Your task to perform on an android device: Add "bose quietcomfort 35" to the cart on costco.com, then select checkout. Image 0: 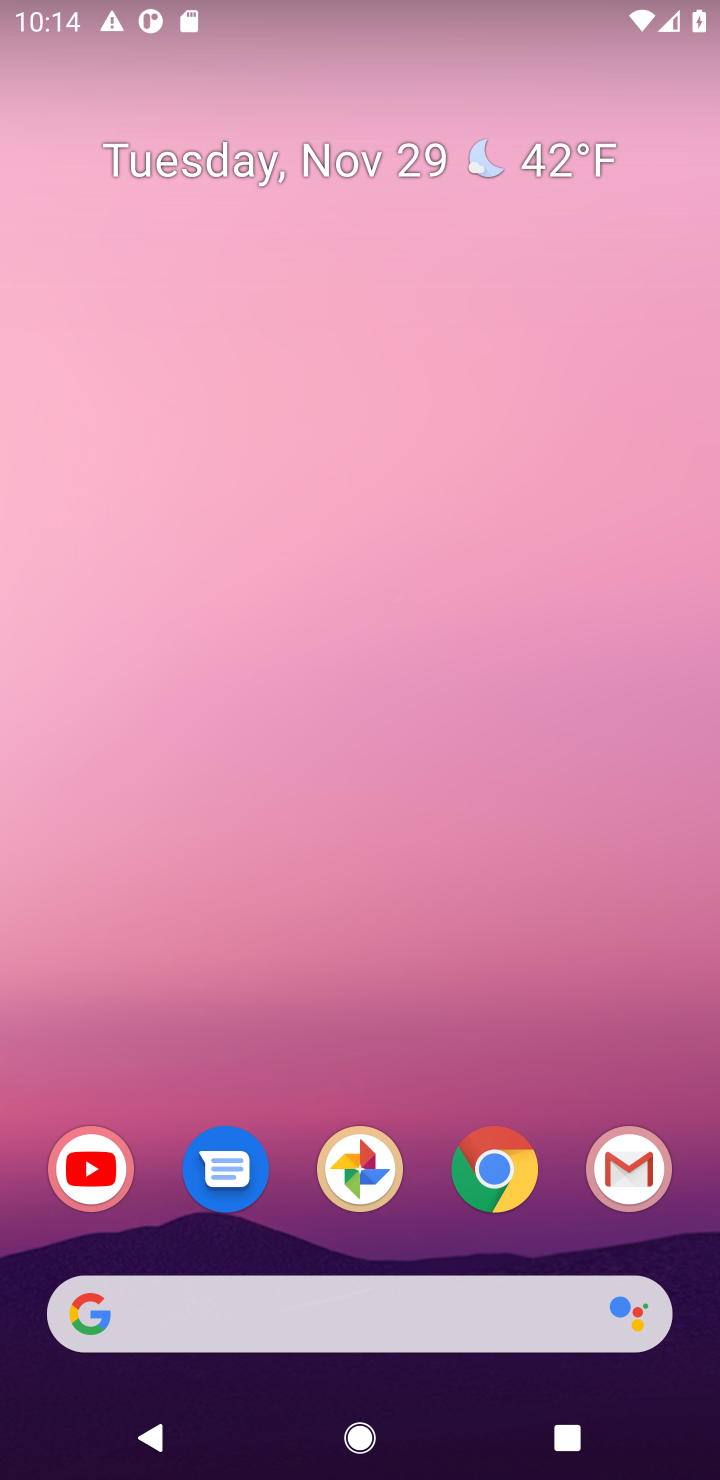
Step 0: click (295, 1289)
Your task to perform on an android device: Add "bose quietcomfort 35" to the cart on costco.com, then select checkout. Image 1: 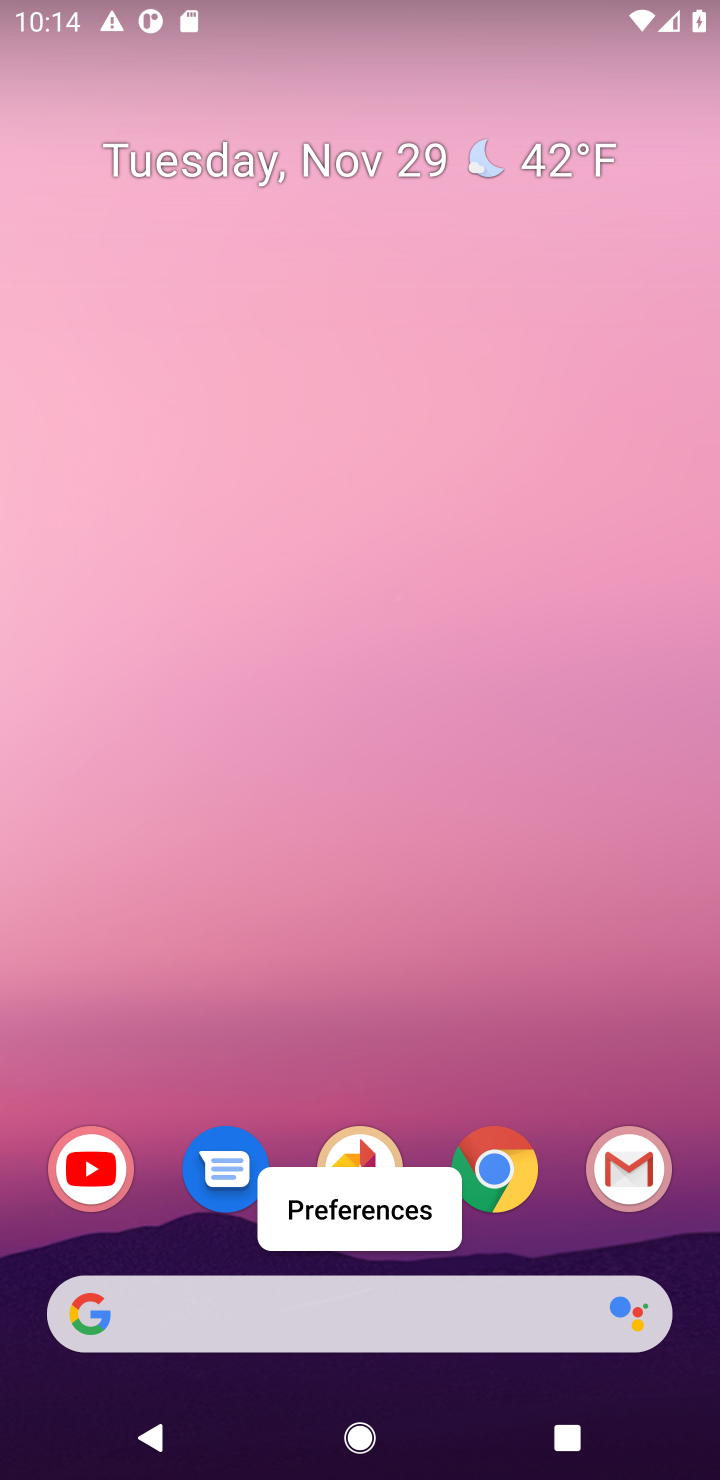
Step 1: type "costco.com"
Your task to perform on an android device: Add "bose quietcomfort 35" to the cart on costco.com, then select checkout. Image 2: 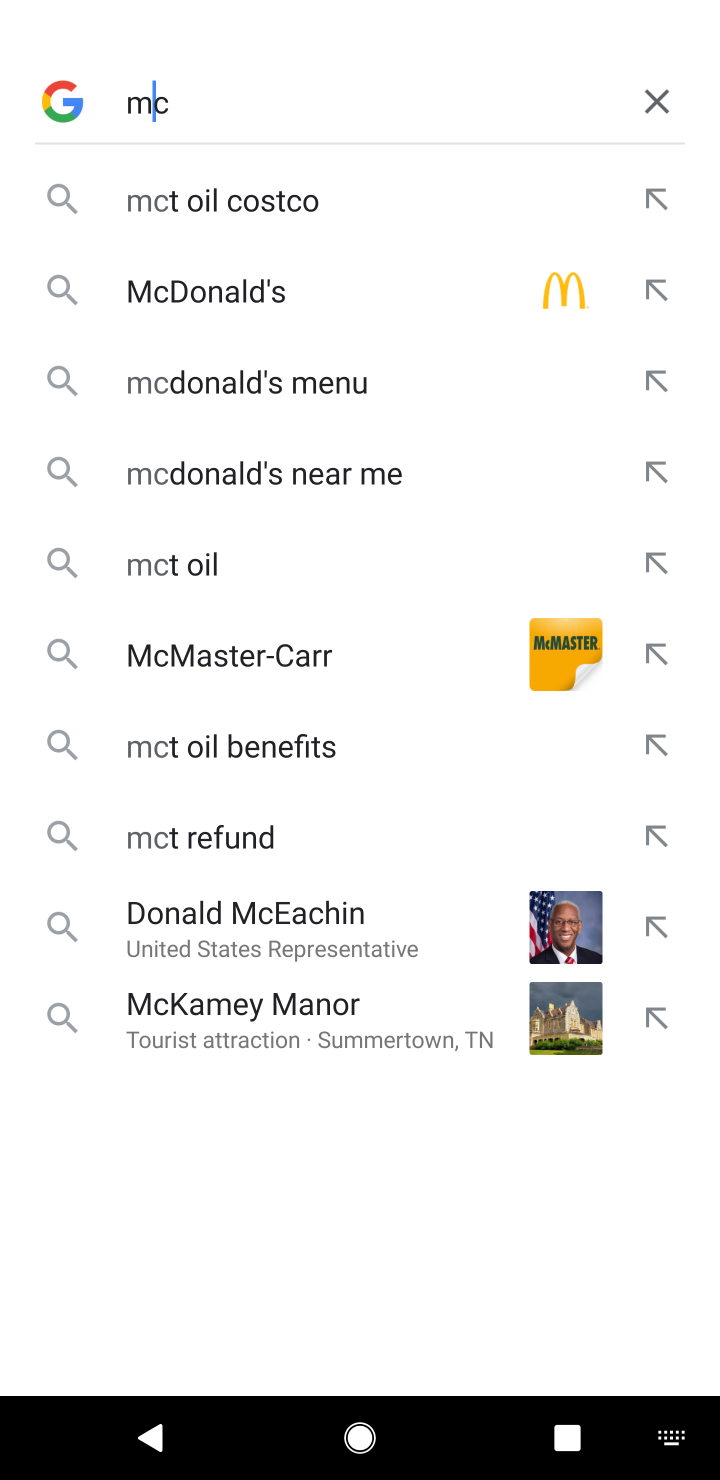
Step 2: click (645, 112)
Your task to perform on an android device: Add "bose quietcomfort 35" to the cart on costco.com, then select checkout. Image 3: 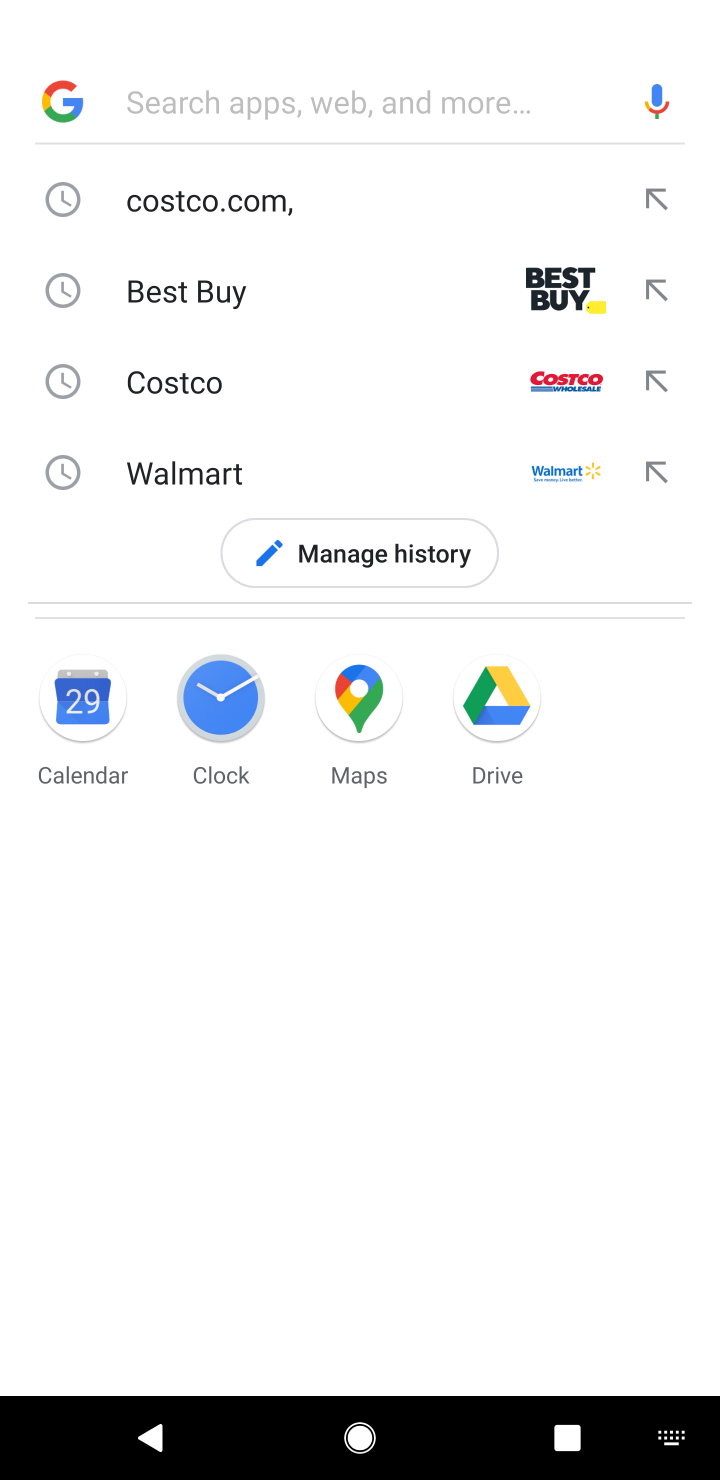
Step 3: click (207, 372)
Your task to perform on an android device: Add "bose quietcomfort 35" to the cart on costco.com, then select checkout. Image 4: 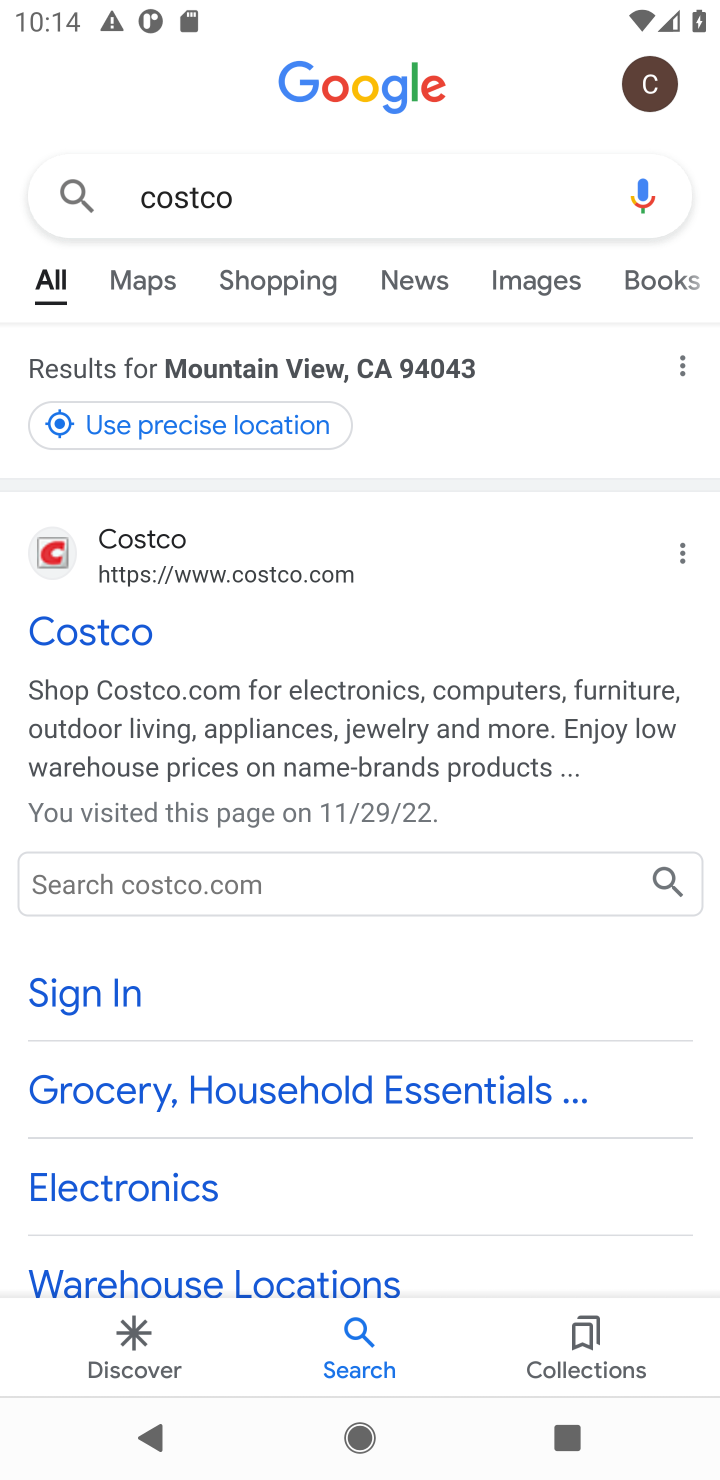
Step 4: click (97, 646)
Your task to perform on an android device: Add "bose quietcomfort 35" to the cart on costco.com, then select checkout. Image 5: 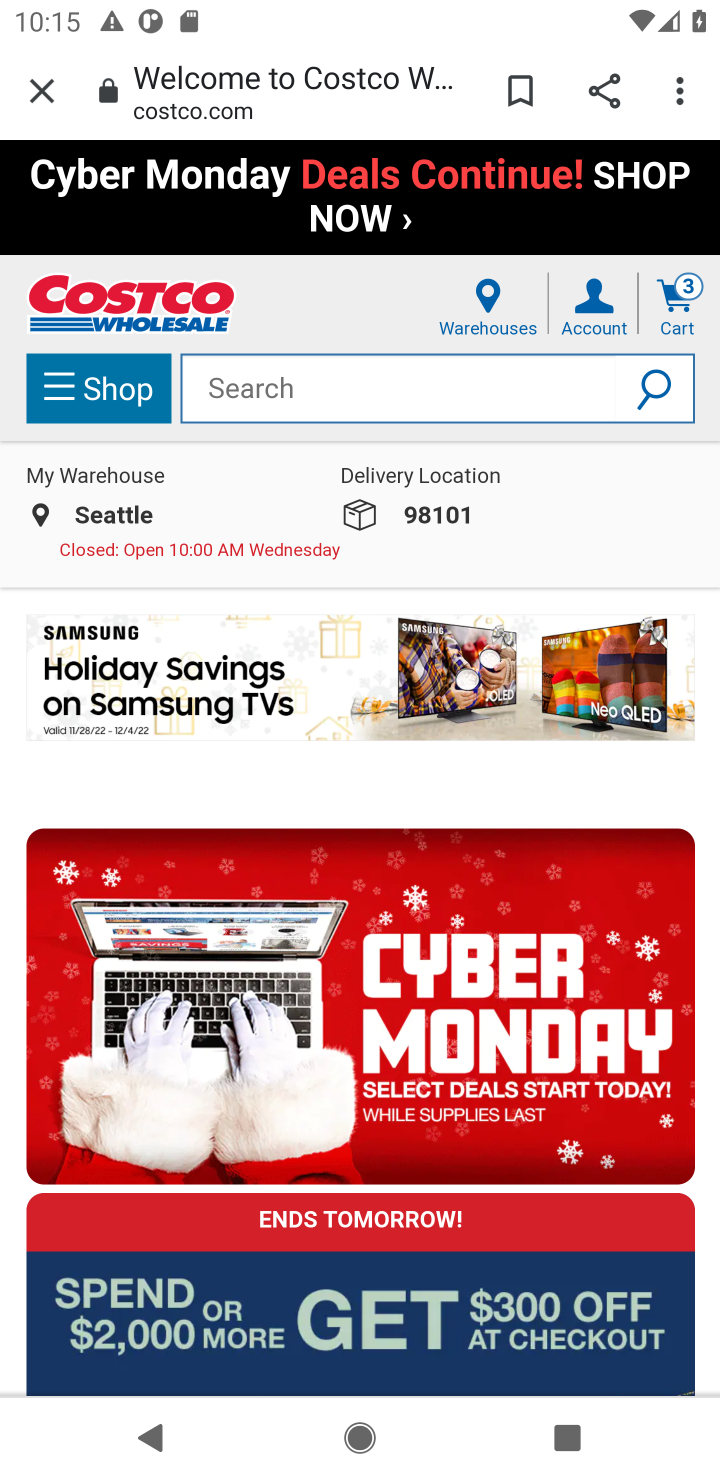
Step 5: click (284, 402)
Your task to perform on an android device: Add "bose quietcomfort 35" to the cart on costco.com, then select checkout. Image 6: 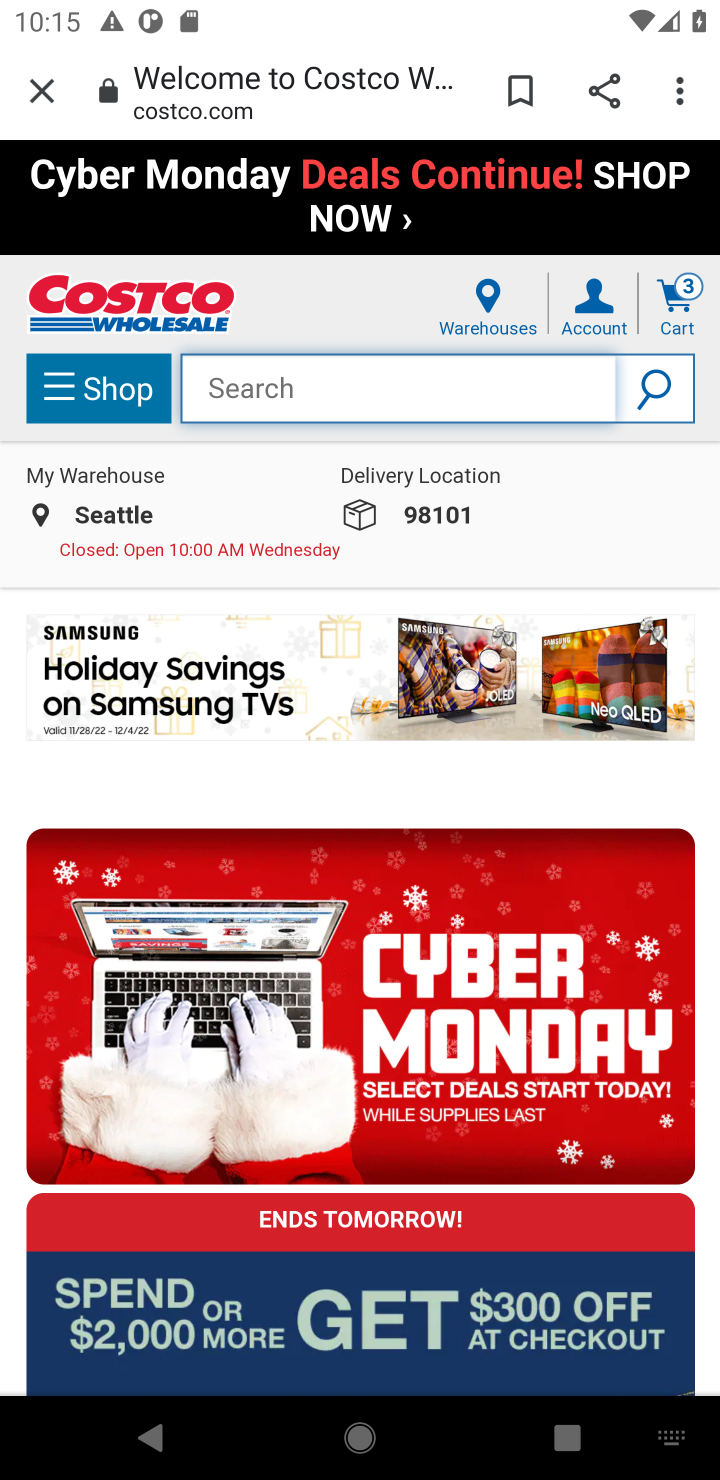
Step 6: type "costco.com"
Your task to perform on an android device: Add "bose quietcomfort 35" to the cart on costco.com, then select checkout. Image 7: 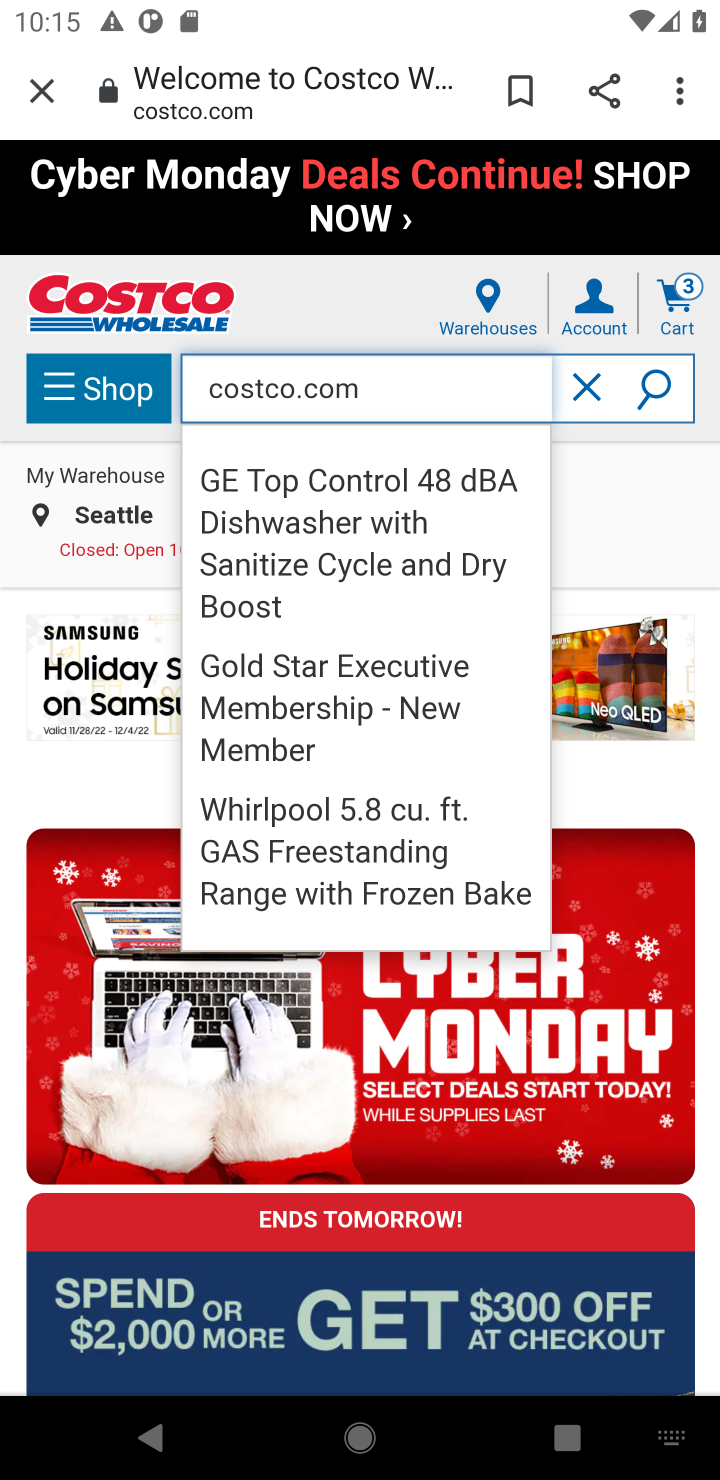
Step 7: click (665, 382)
Your task to perform on an android device: Add "bose quietcomfort 35" to the cart on costco.com, then select checkout. Image 8: 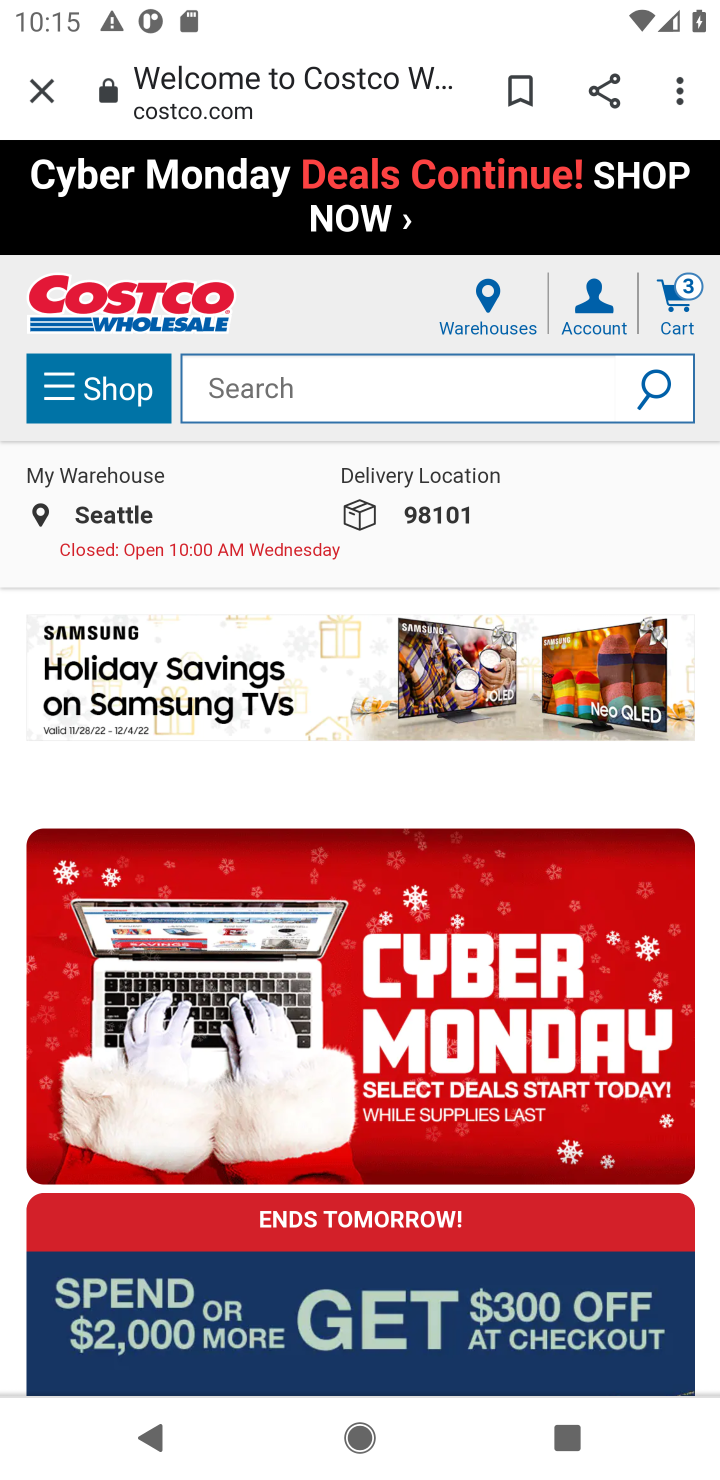
Step 8: task complete